Your task to perform on an android device: clear history in the chrome app Image 0: 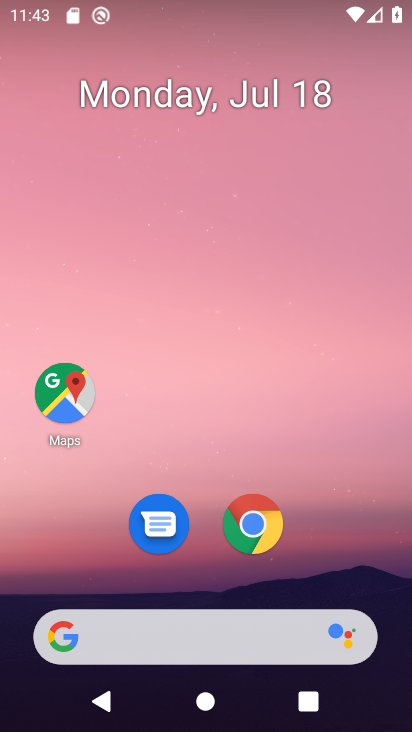
Step 0: click (262, 534)
Your task to perform on an android device: clear history in the chrome app Image 1: 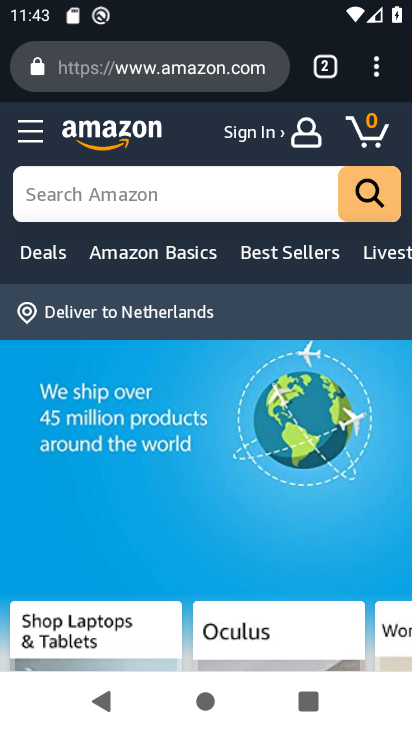
Step 1: click (373, 63)
Your task to perform on an android device: clear history in the chrome app Image 2: 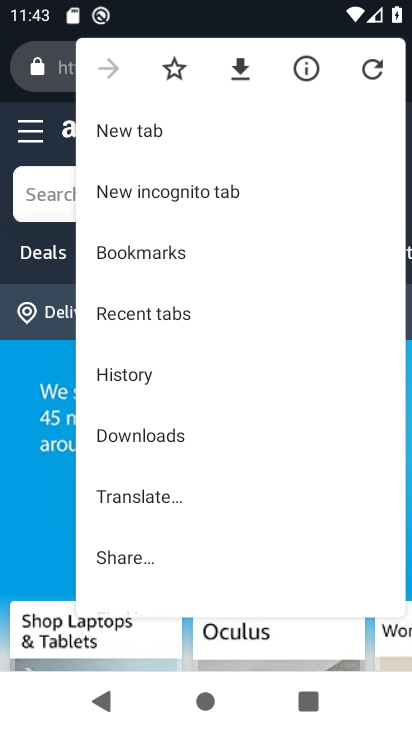
Step 2: click (136, 371)
Your task to perform on an android device: clear history in the chrome app Image 3: 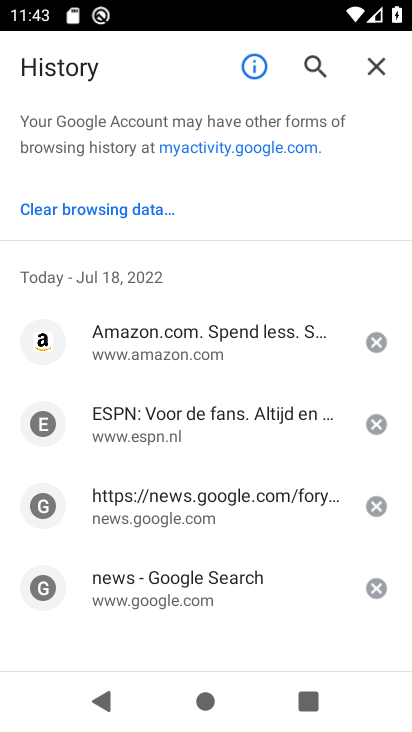
Step 3: click (113, 208)
Your task to perform on an android device: clear history in the chrome app Image 4: 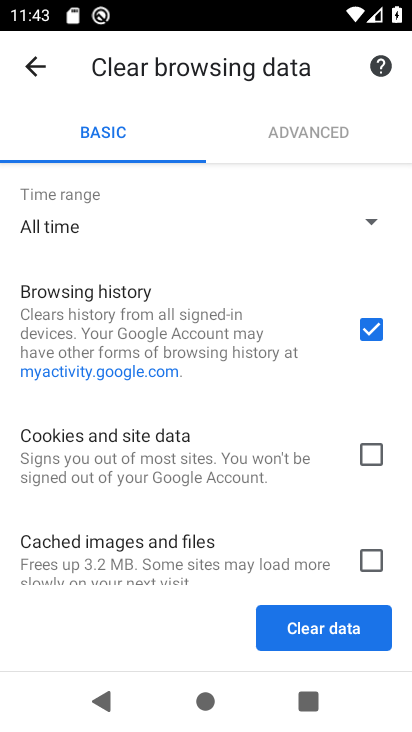
Step 4: click (305, 626)
Your task to perform on an android device: clear history in the chrome app Image 5: 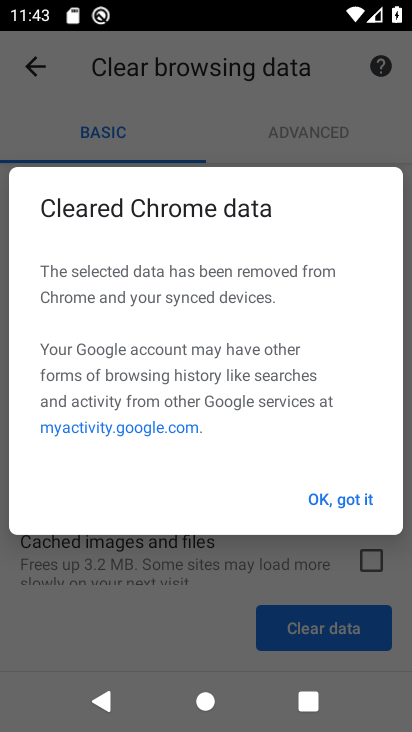
Step 5: click (357, 495)
Your task to perform on an android device: clear history in the chrome app Image 6: 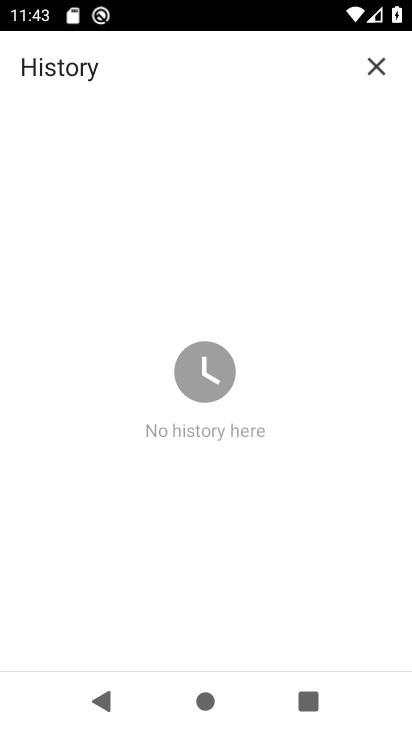
Step 6: task complete